Your task to perform on an android device: turn off notifications in google photos Image 0: 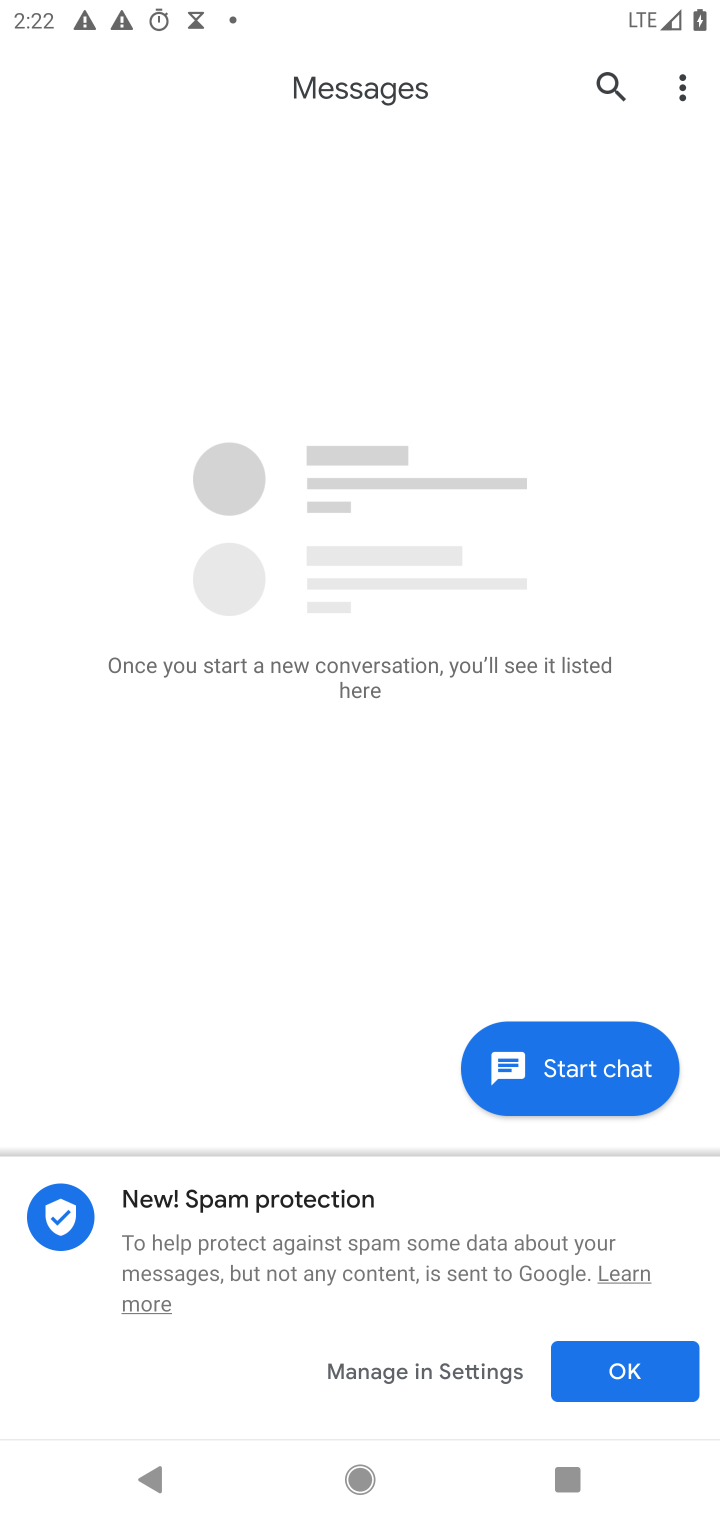
Step 0: press home button
Your task to perform on an android device: turn off notifications in google photos Image 1: 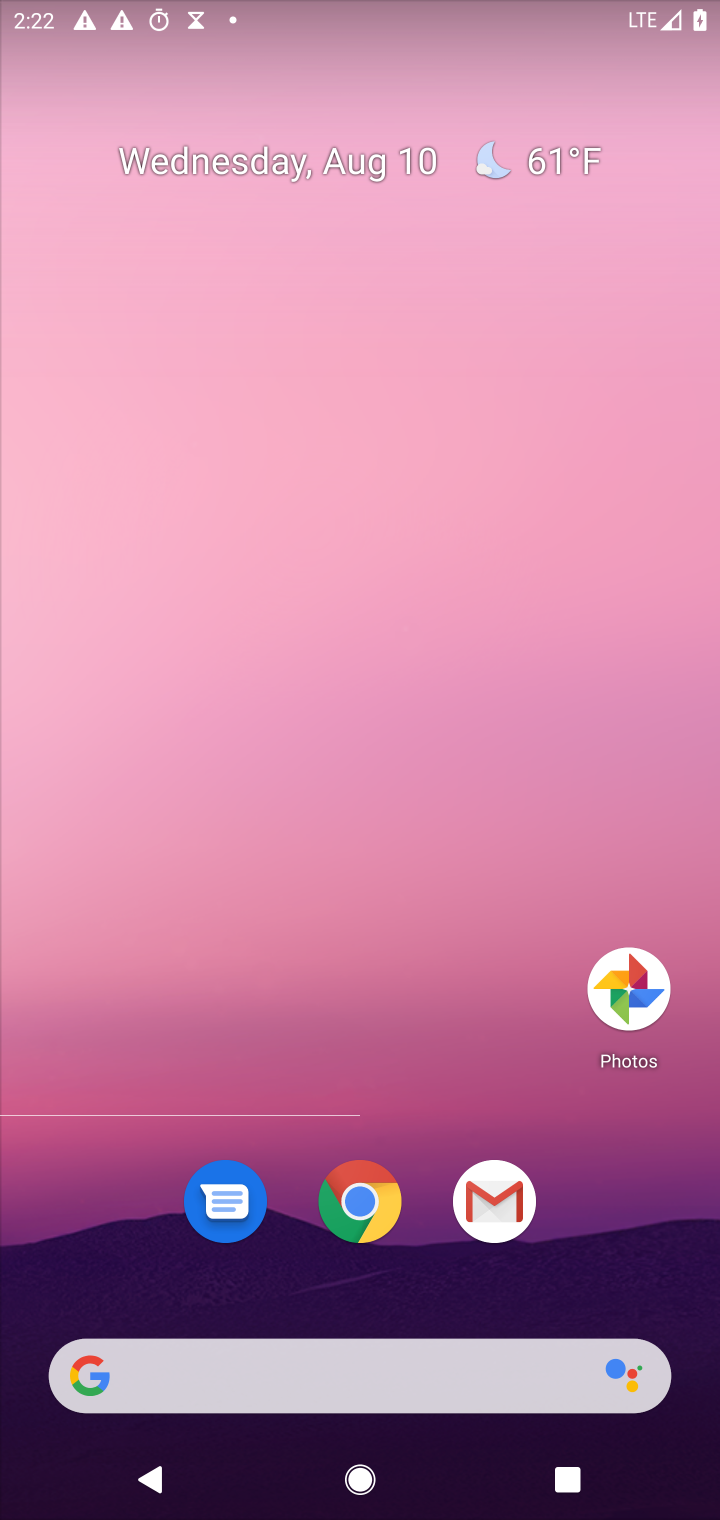
Step 1: click (628, 993)
Your task to perform on an android device: turn off notifications in google photos Image 2: 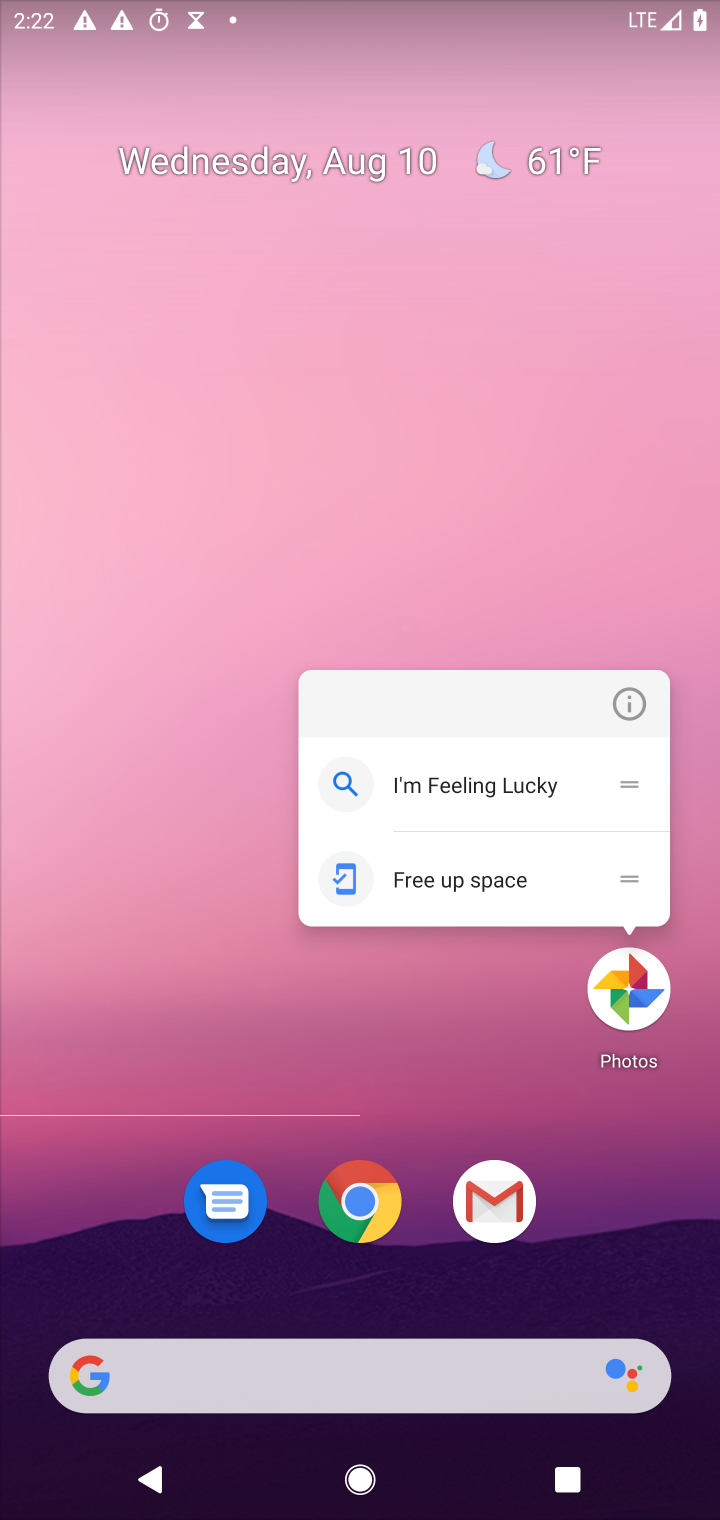
Step 2: click (628, 994)
Your task to perform on an android device: turn off notifications in google photos Image 3: 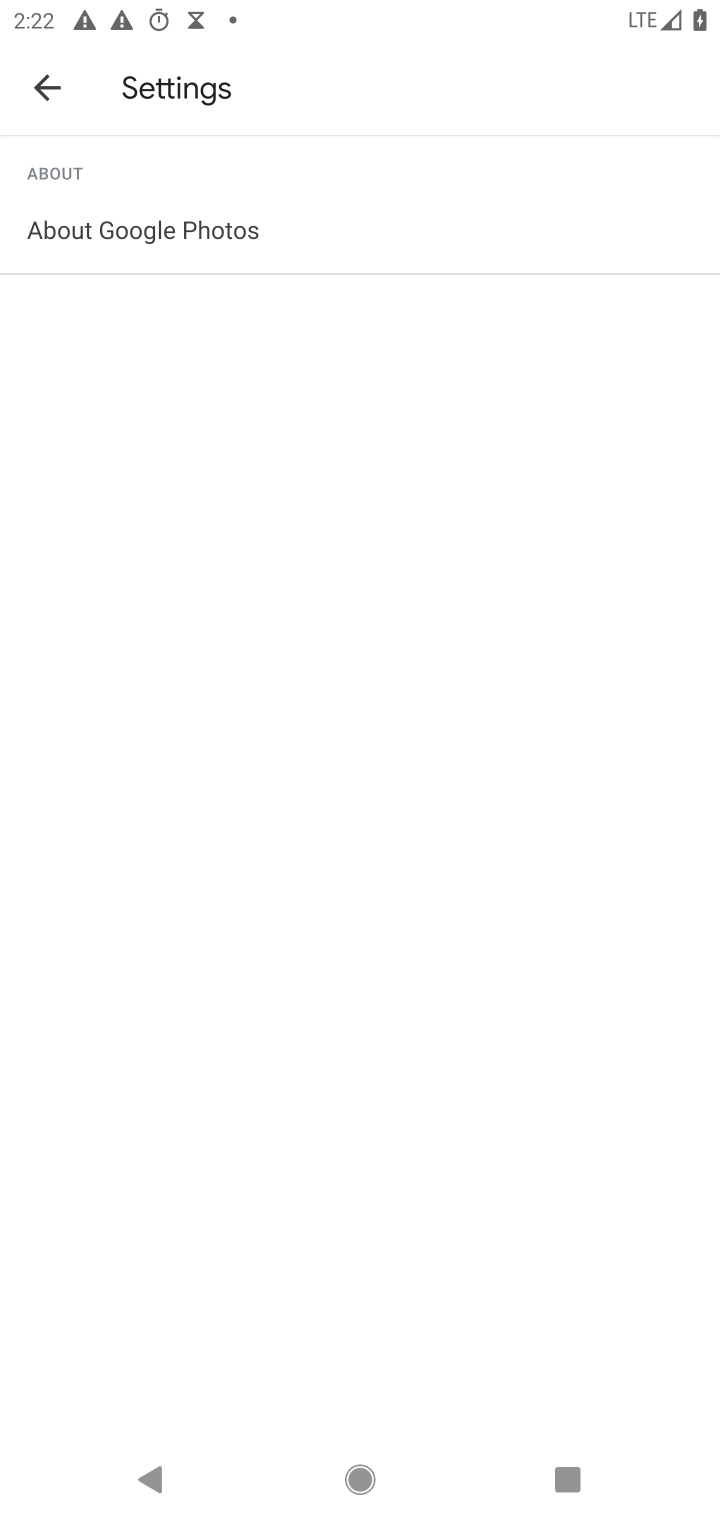
Step 3: press back button
Your task to perform on an android device: turn off notifications in google photos Image 4: 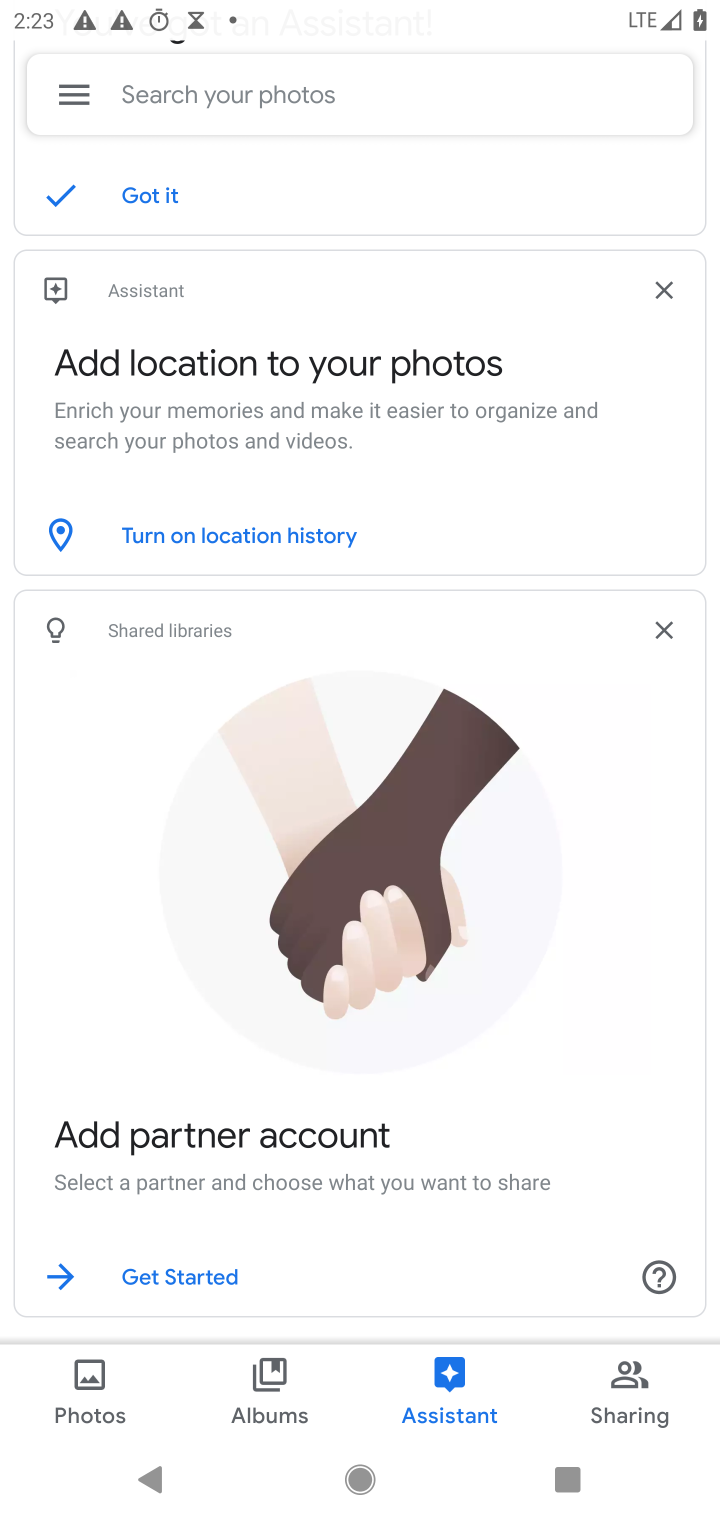
Step 4: click (73, 98)
Your task to perform on an android device: turn off notifications in google photos Image 5: 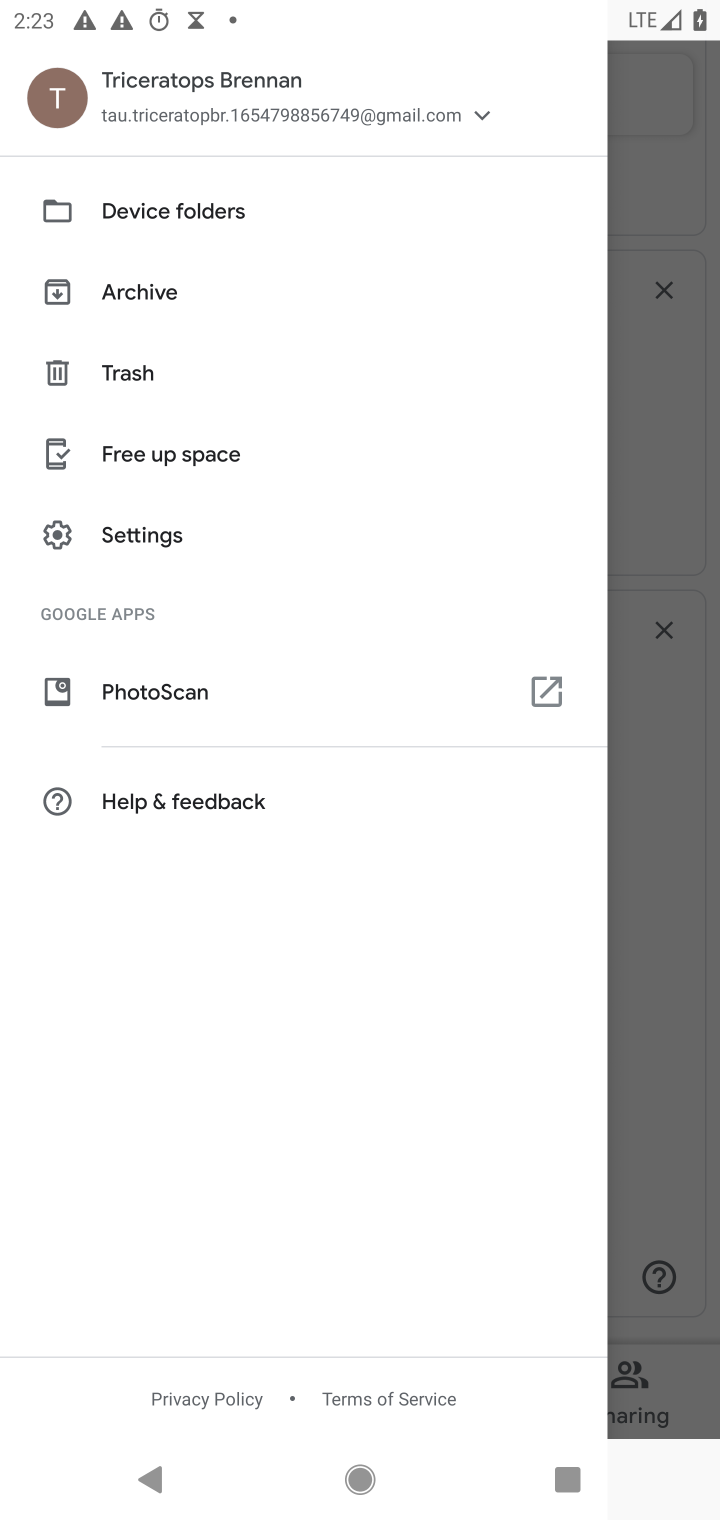
Step 5: click (145, 538)
Your task to perform on an android device: turn off notifications in google photos Image 6: 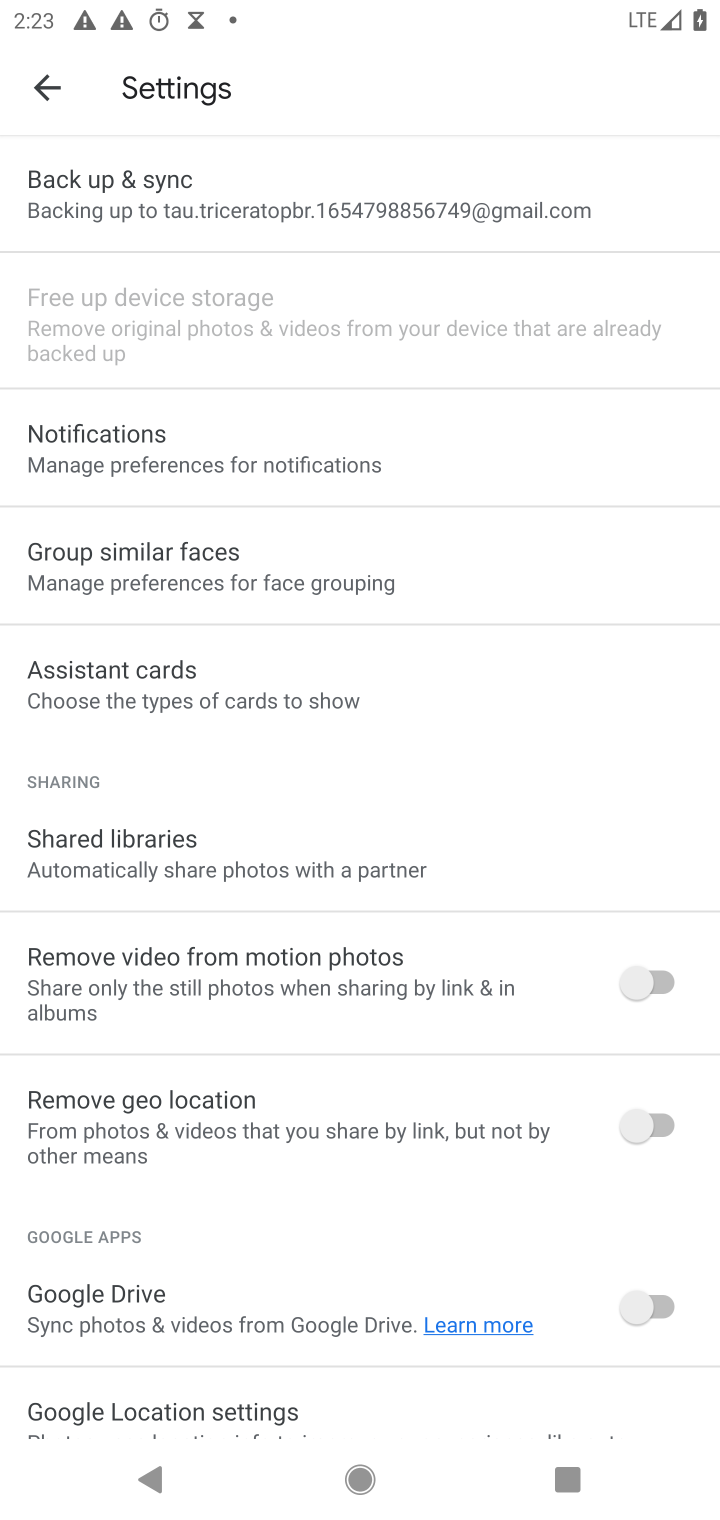
Step 6: click (54, 457)
Your task to perform on an android device: turn off notifications in google photos Image 7: 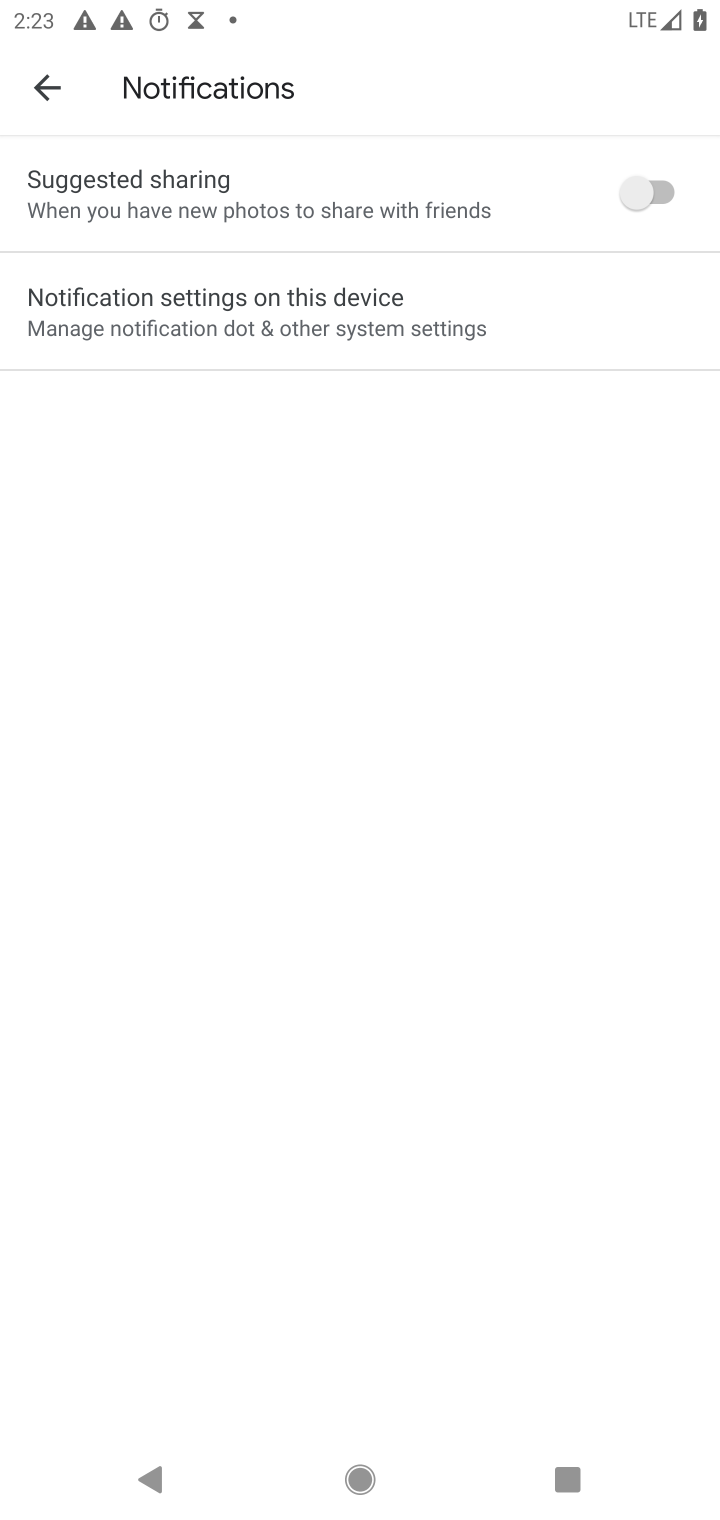
Step 7: task complete